Your task to perform on an android device: see sites visited before in the chrome app Image 0: 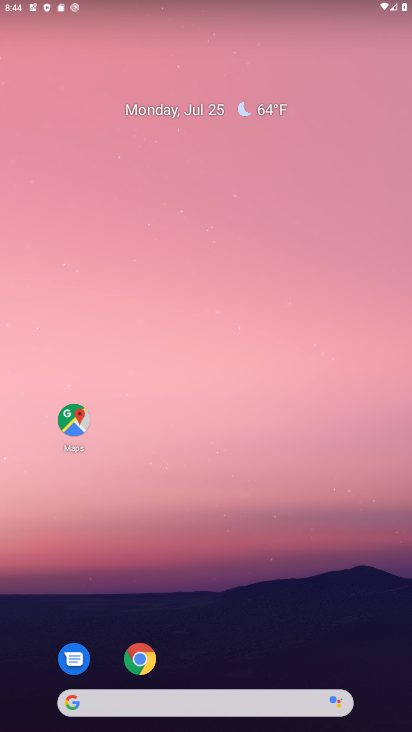
Step 0: click (354, 93)
Your task to perform on an android device: see sites visited before in the chrome app Image 1: 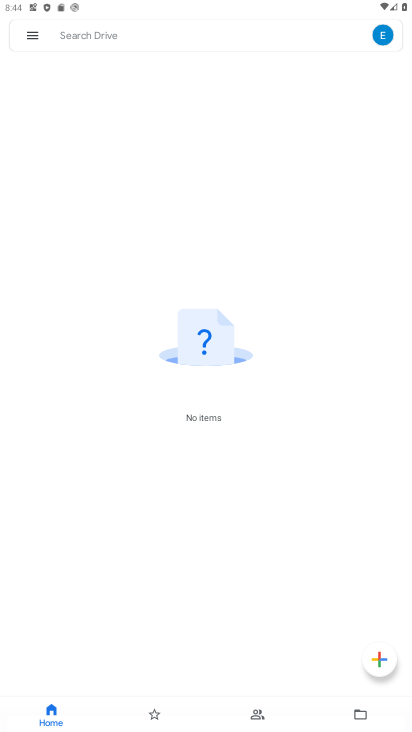
Step 1: press home button
Your task to perform on an android device: see sites visited before in the chrome app Image 2: 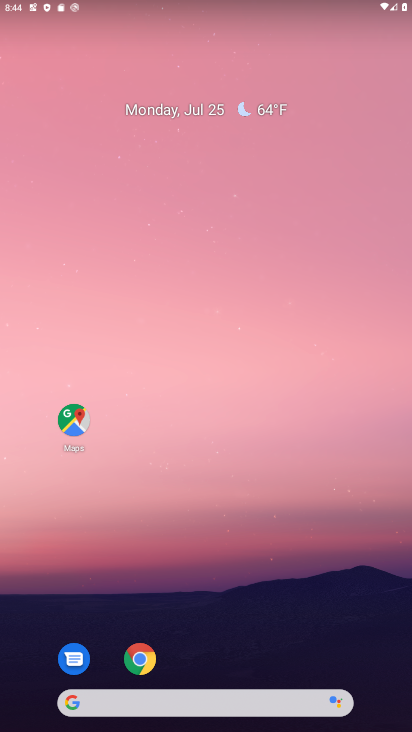
Step 2: drag from (338, 623) to (339, 128)
Your task to perform on an android device: see sites visited before in the chrome app Image 3: 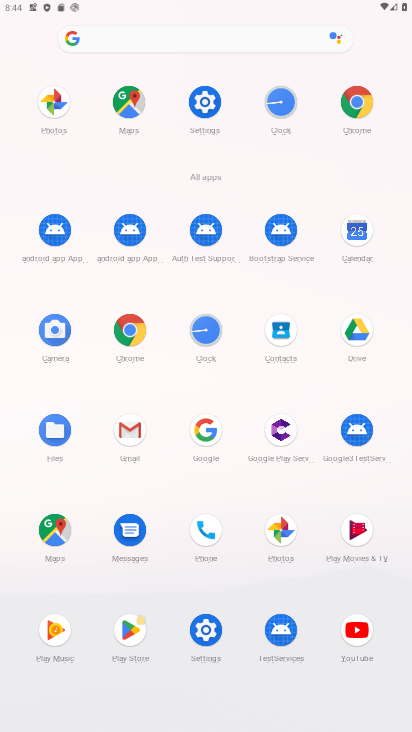
Step 3: click (132, 334)
Your task to perform on an android device: see sites visited before in the chrome app Image 4: 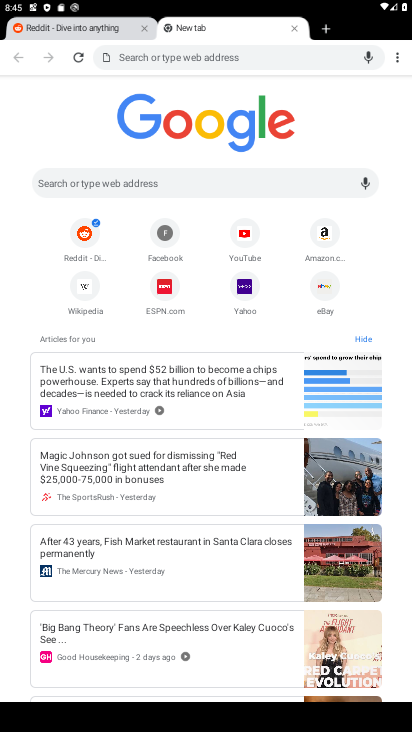
Step 4: click (398, 56)
Your task to perform on an android device: see sites visited before in the chrome app Image 5: 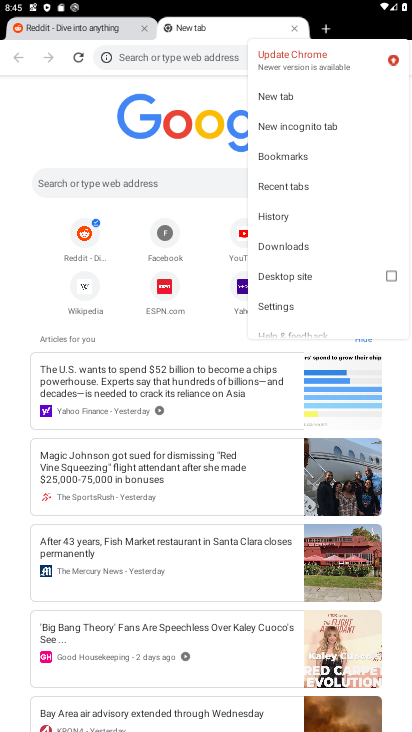
Step 5: click (288, 222)
Your task to perform on an android device: see sites visited before in the chrome app Image 6: 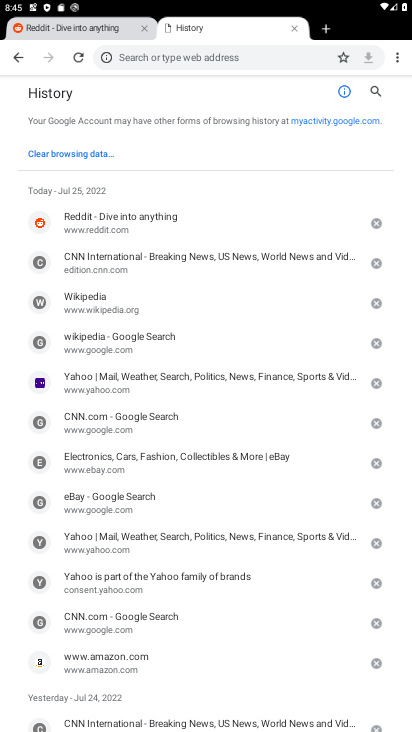
Step 6: task complete